Your task to perform on an android device: uninstall "Flipkart Online Shopping App" Image 0: 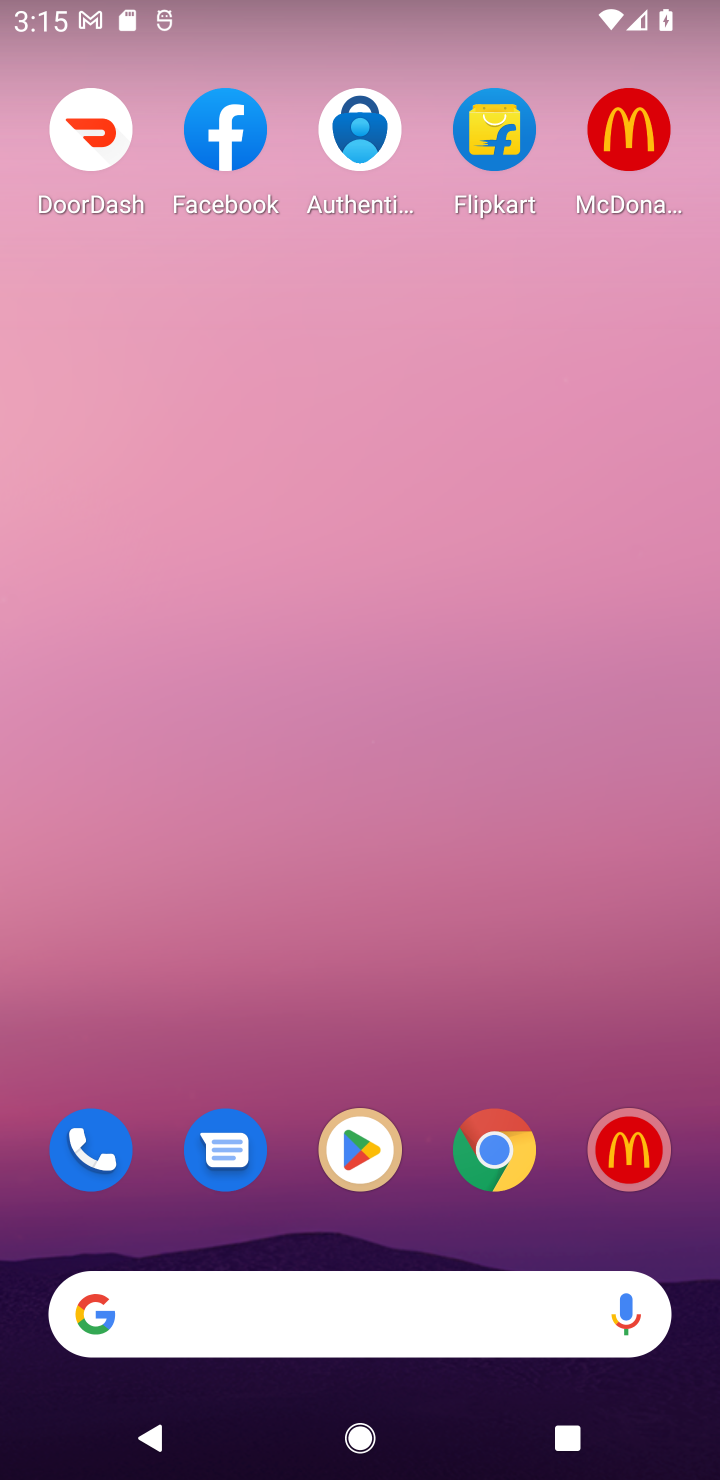
Step 0: click (360, 1147)
Your task to perform on an android device: uninstall "Flipkart Online Shopping App" Image 1: 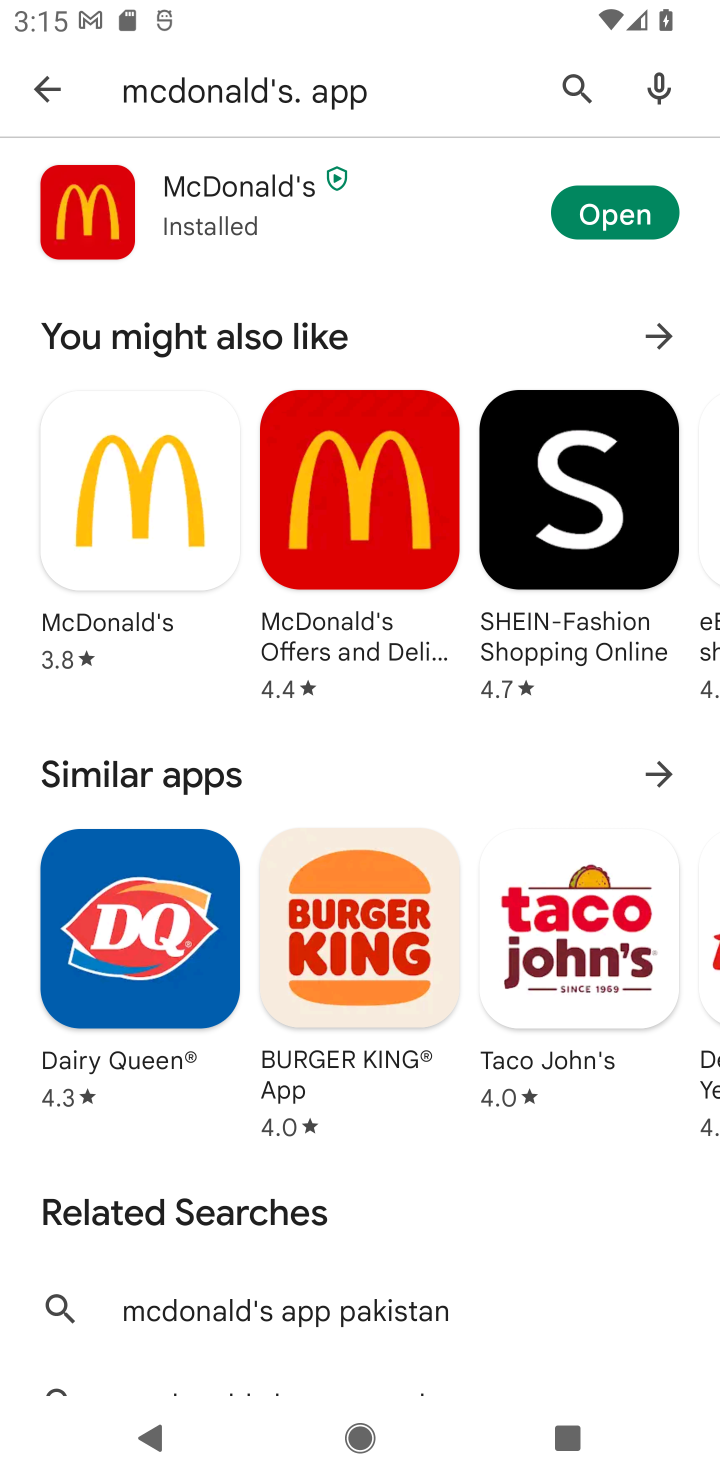
Step 1: click (572, 85)
Your task to perform on an android device: uninstall "Flipkart Online Shopping App" Image 2: 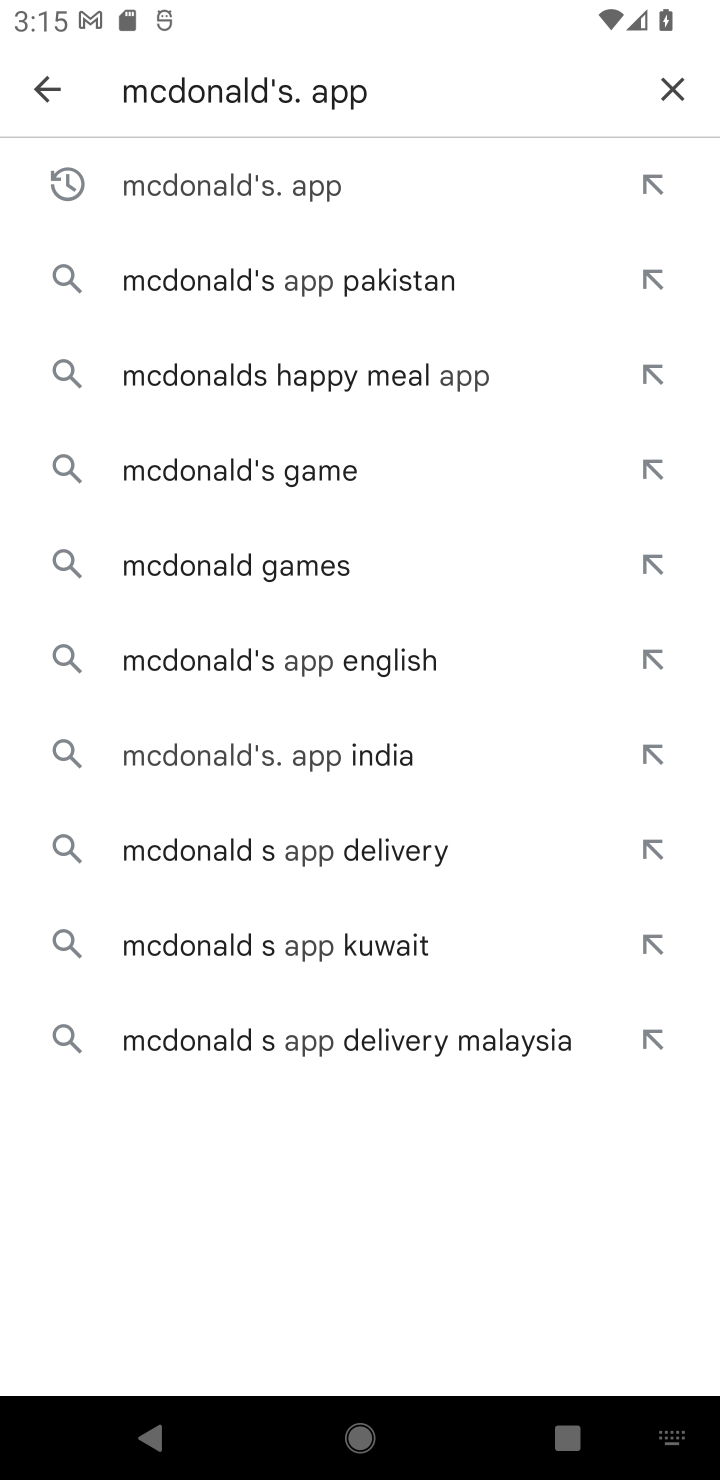
Step 2: press home button
Your task to perform on an android device: uninstall "Flipkart Online Shopping App" Image 3: 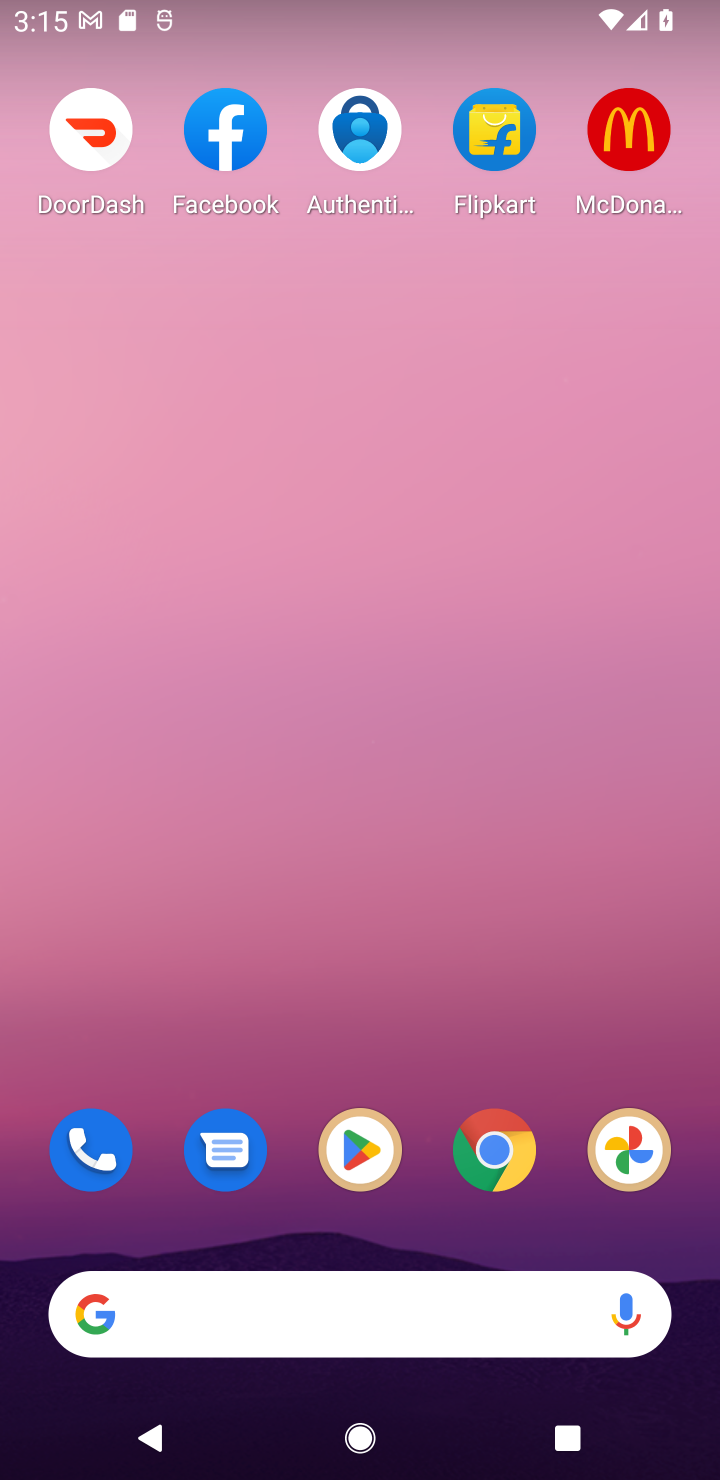
Step 3: click (500, 129)
Your task to perform on an android device: uninstall "Flipkart Online Shopping App" Image 4: 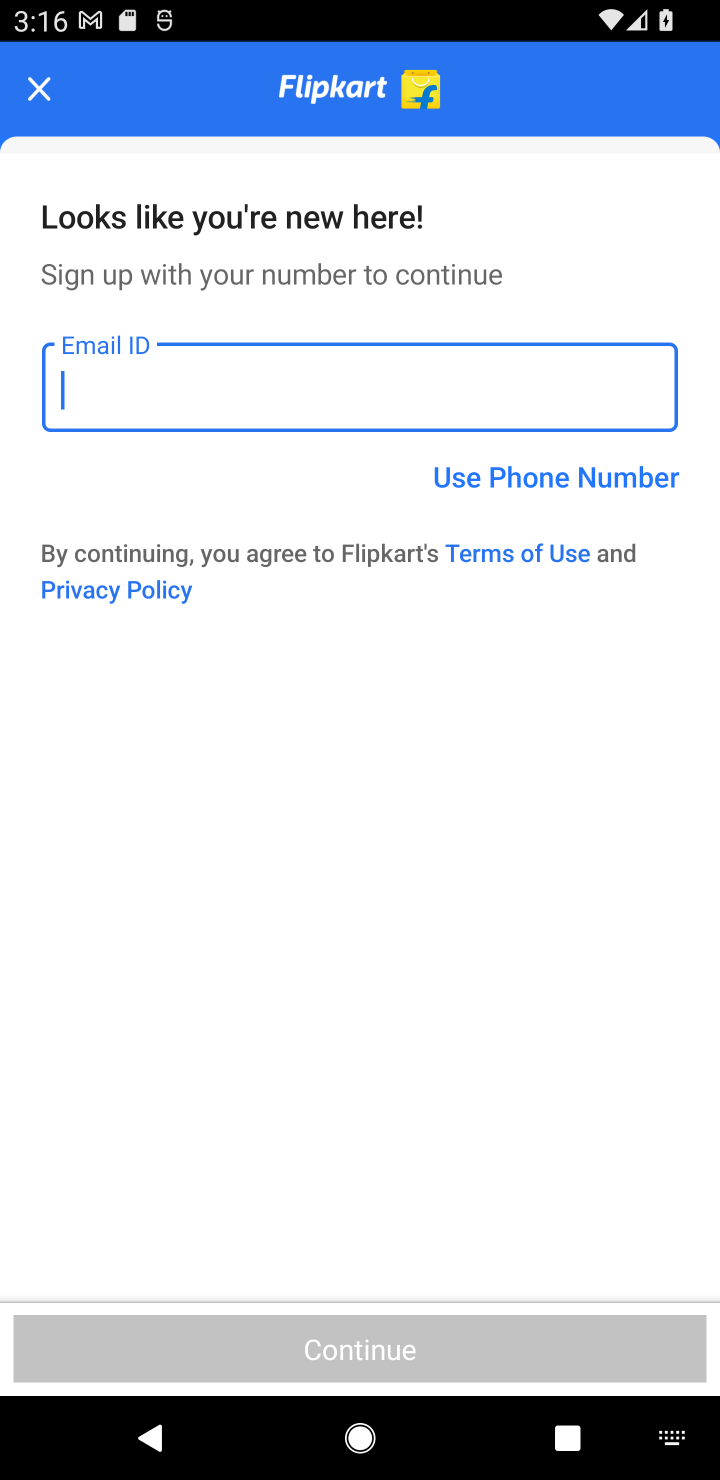
Step 4: press back button
Your task to perform on an android device: uninstall "Flipkart Online Shopping App" Image 5: 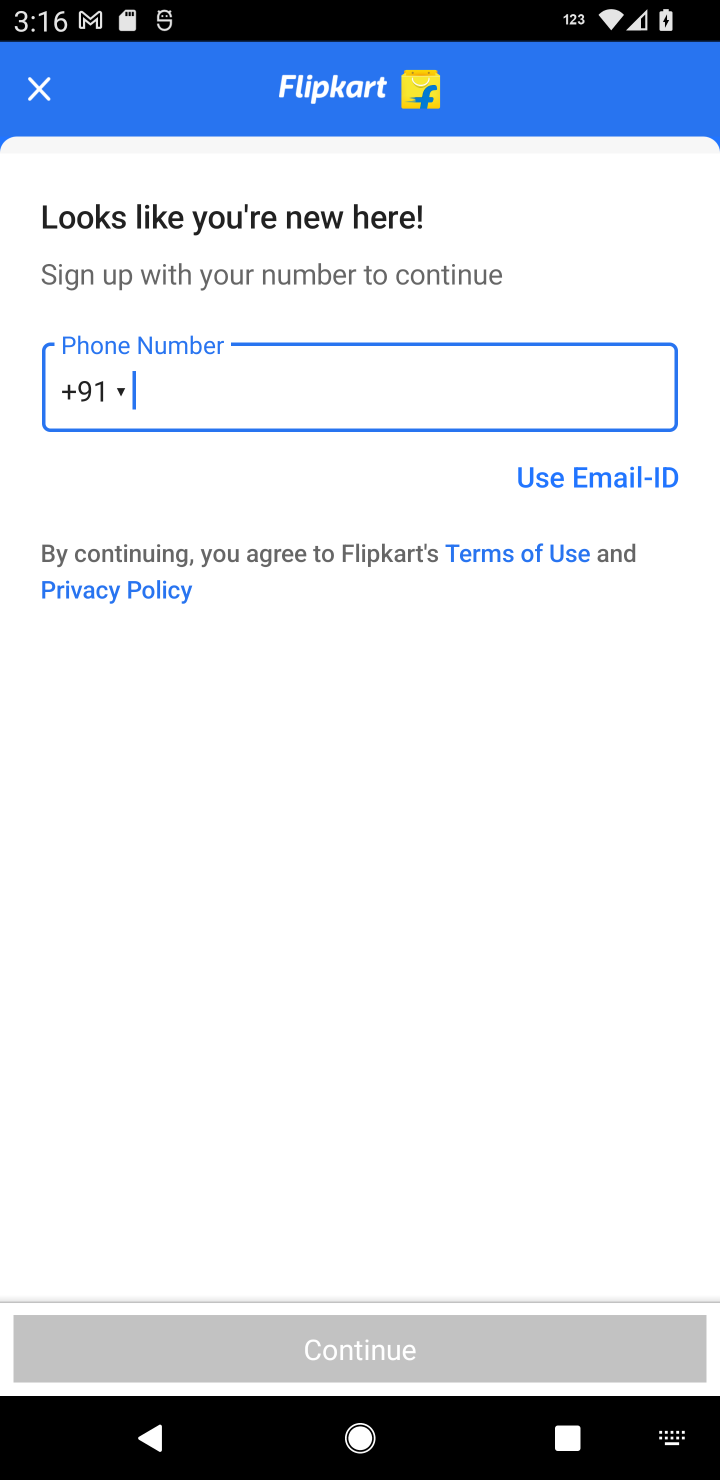
Step 5: press back button
Your task to perform on an android device: uninstall "Flipkart Online Shopping App" Image 6: 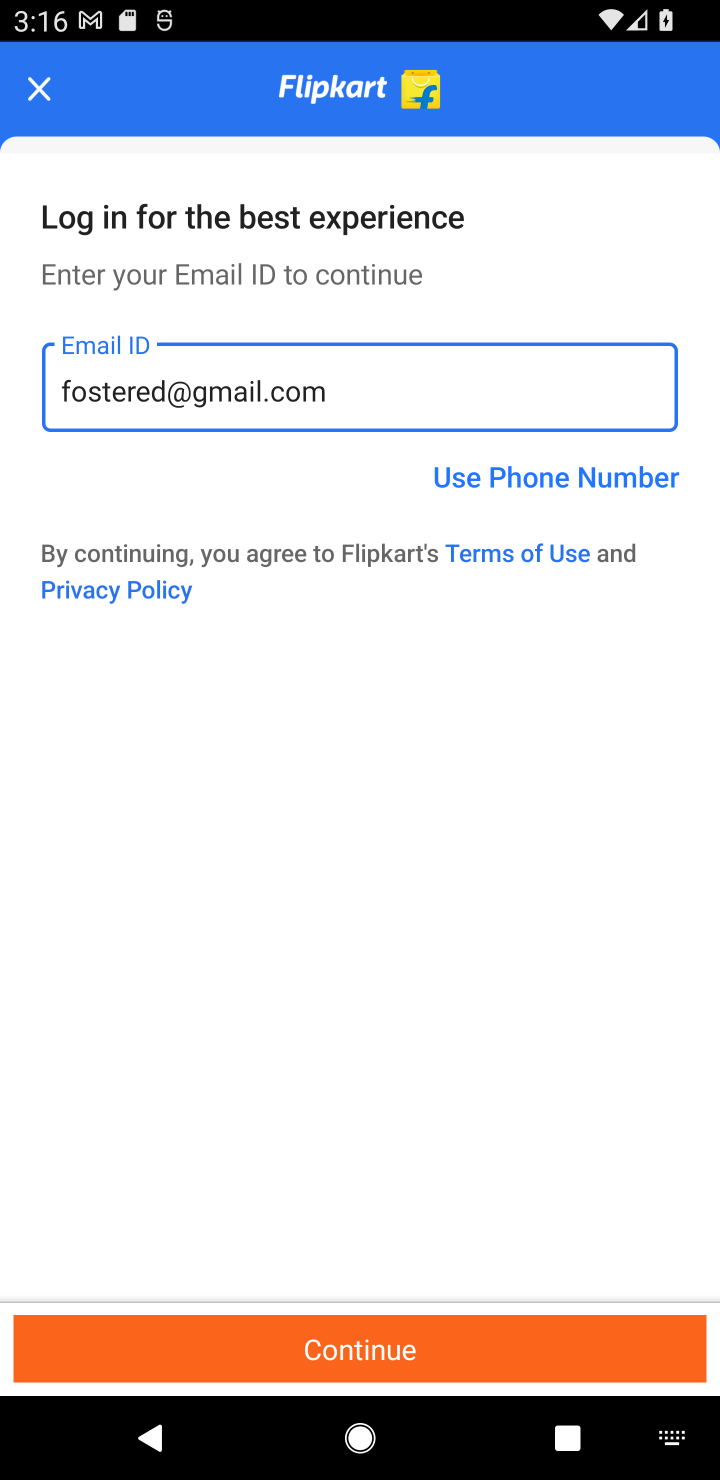
Step 6: press back button
Your task to perform on an android device: uninstall "Flipkart Online Shopping App" Image 7: 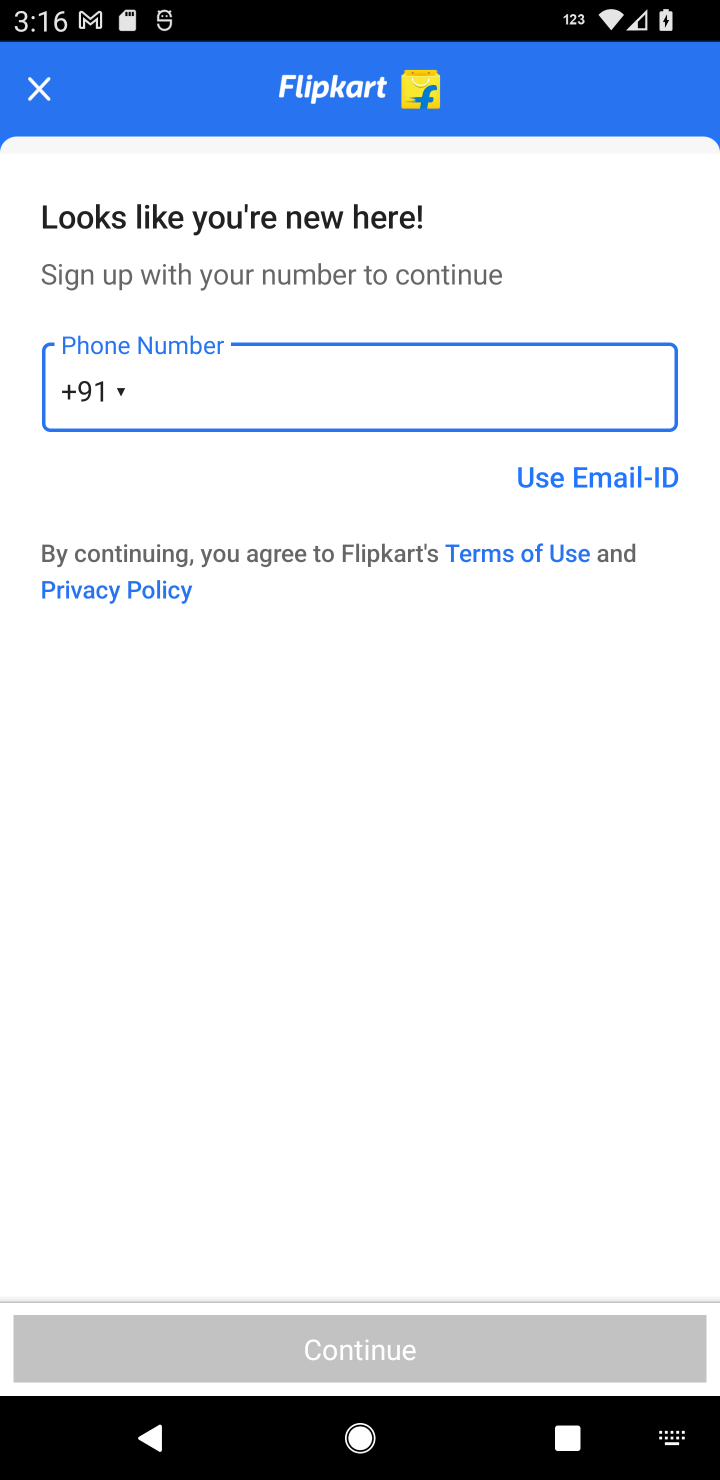
Step 7: click (33, 84)
Your task to perform on an android device: uninstall "Flipkart Online Shopping App" Image 8: 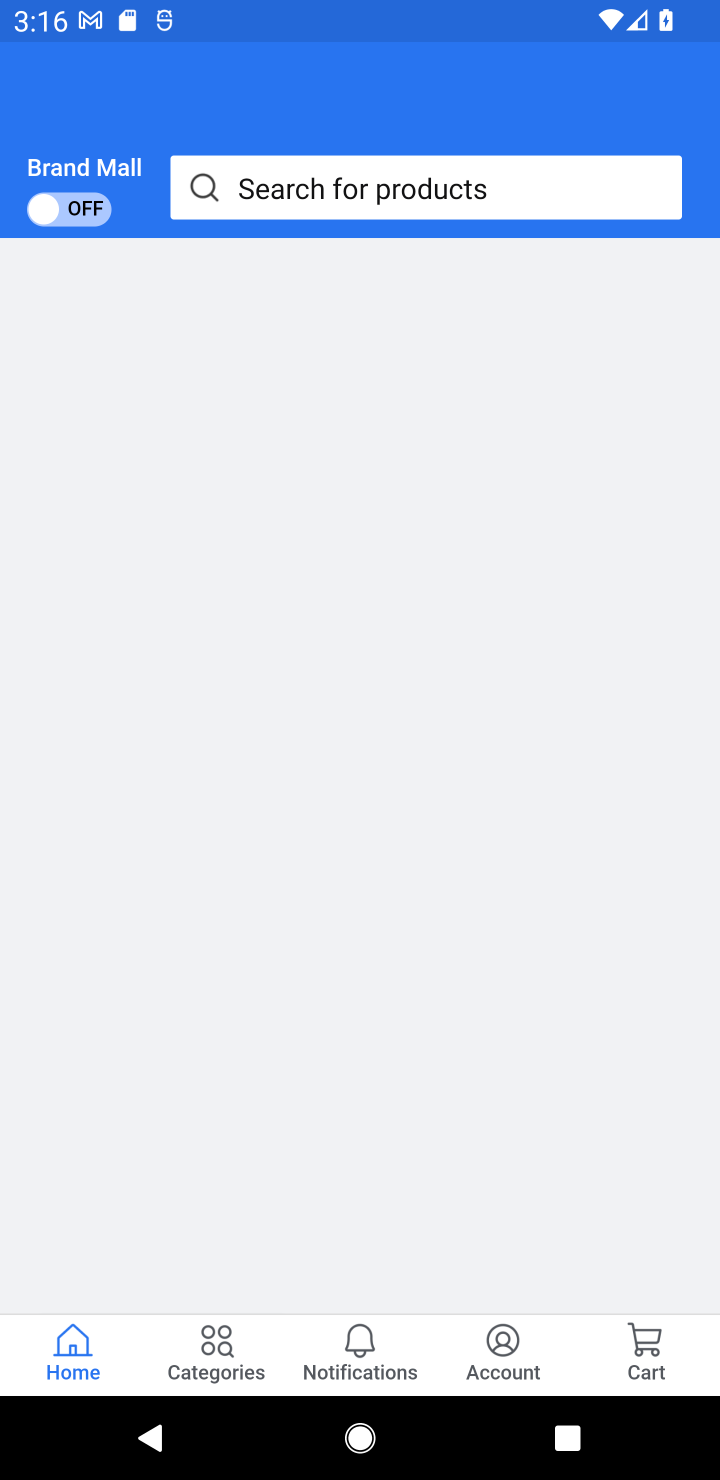
Step 8: press home button
Your task to perform on an android device: uninstall "Flipkart Online Shopping App" Image 9: 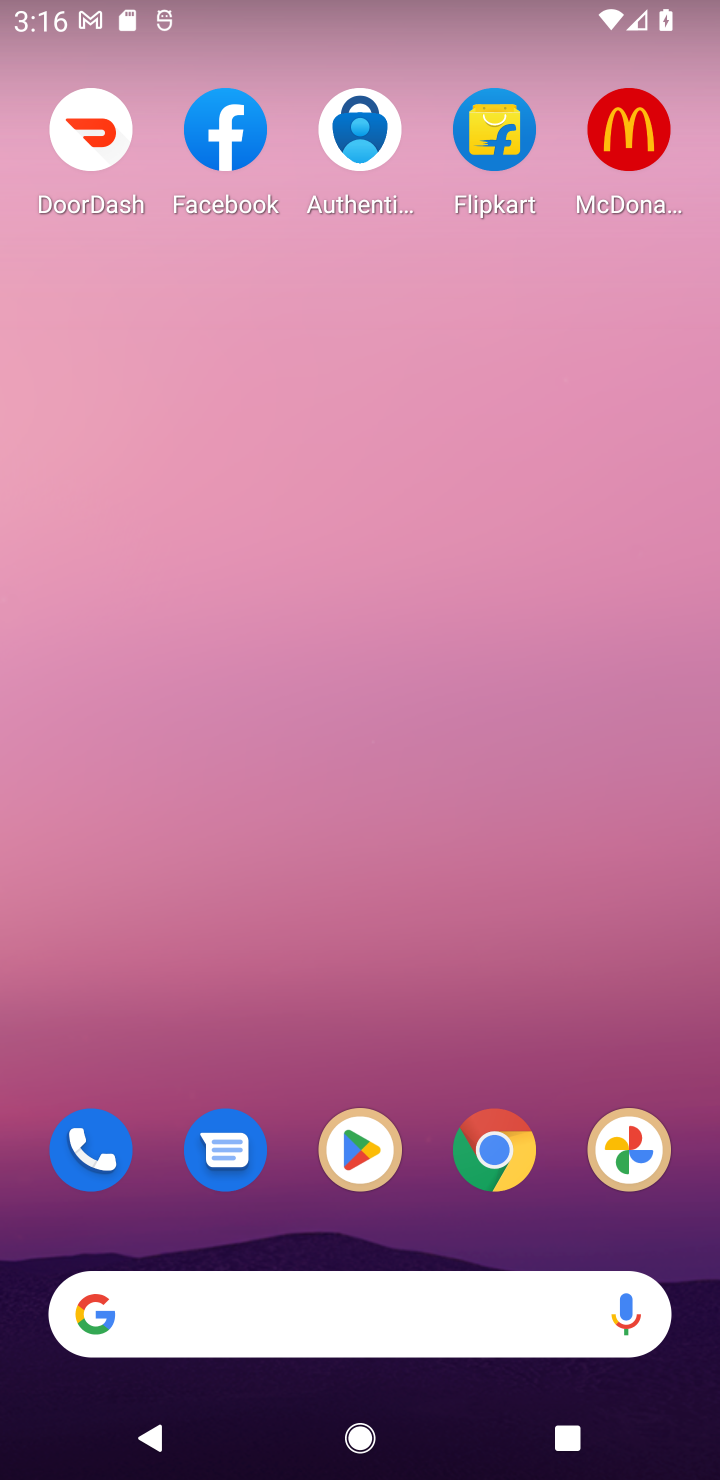
Step 9: click (484, 143)
Your task to perform on an android device: uninstall "Flipkart Online Shopping App" Image 10: 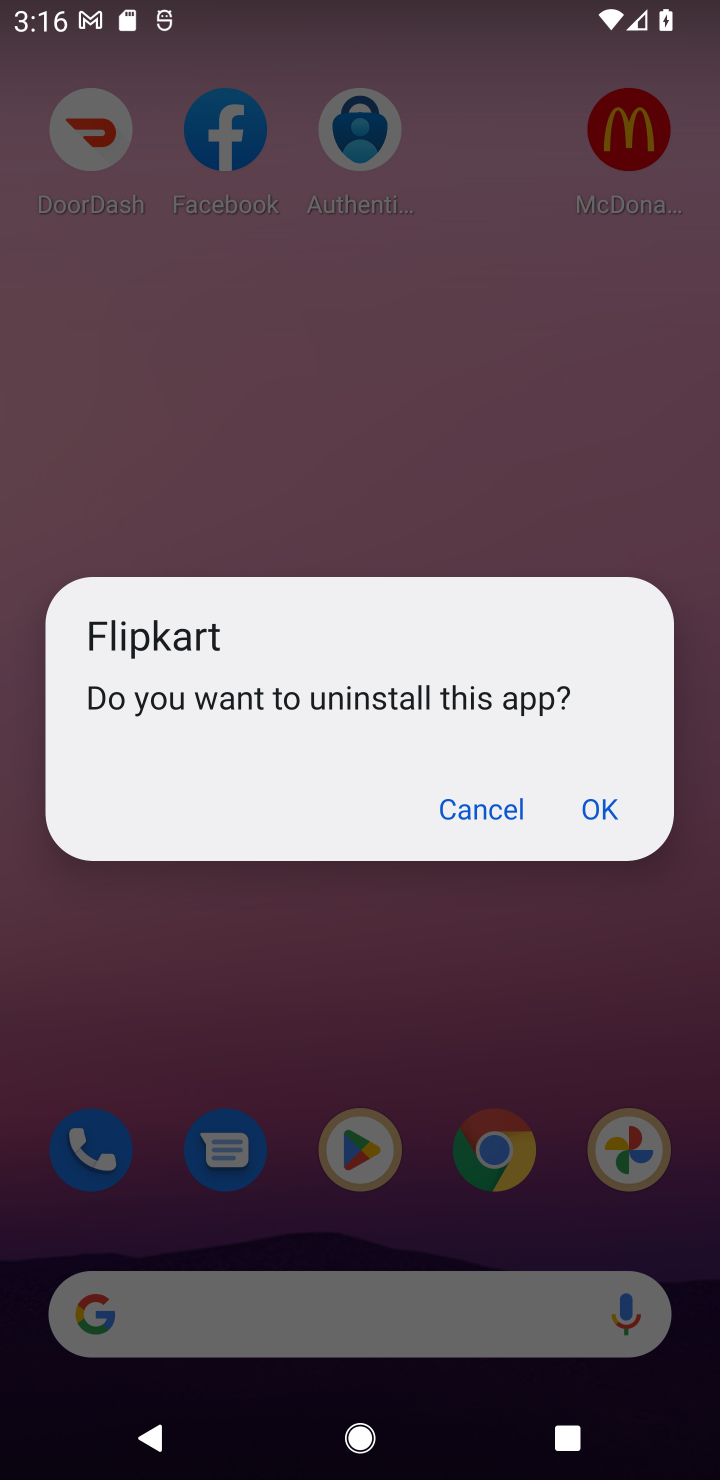
Step 10: click (609, 801)
Your task to perform on an android device: uninstall "Flipkart Online Shopping App" Image 11: 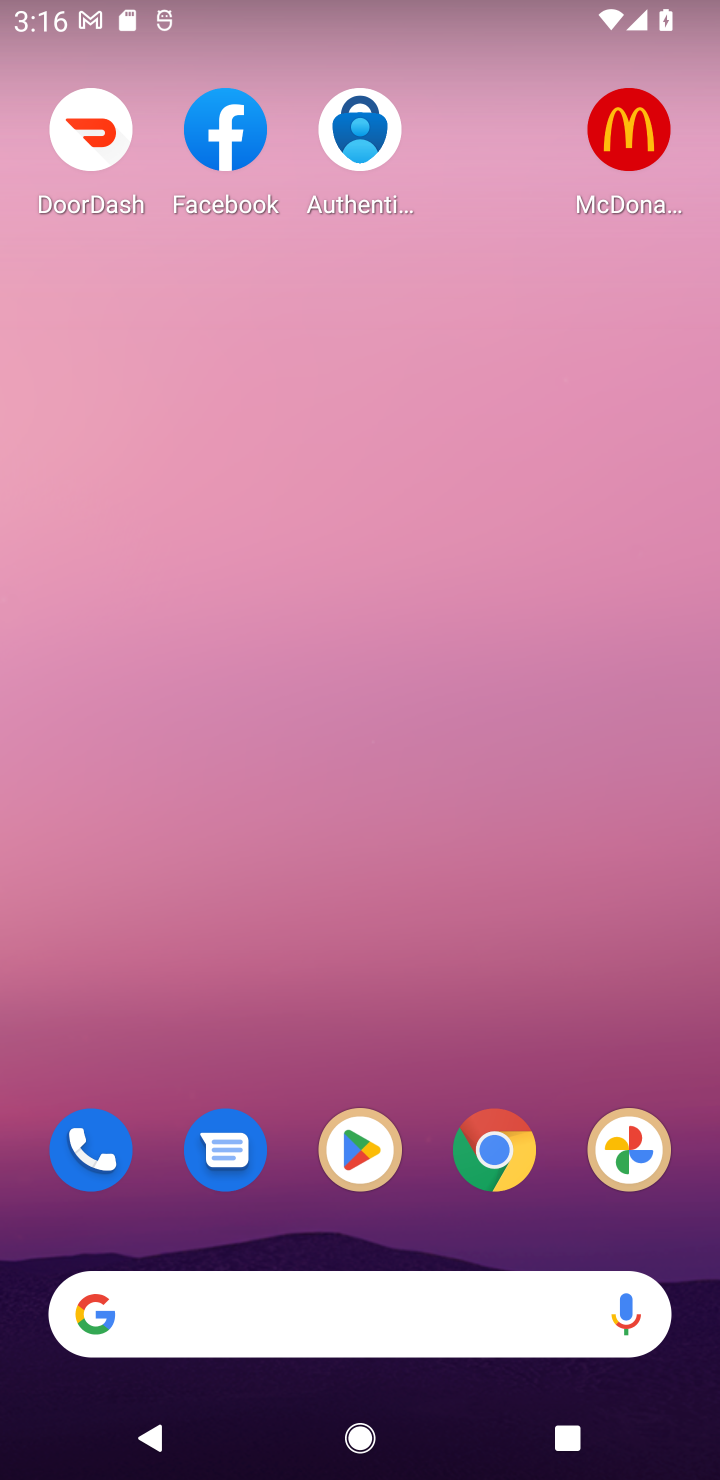
Step 11: task complete